Your task to perform on an android device: Open Google Maps and go to "Timeline" Image 0: 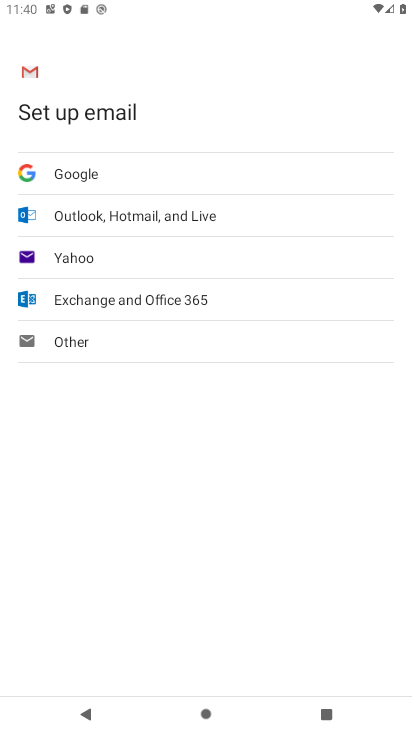
Step 0: press home button
Your task to perform on an android device: Open Google Maps and go to "Timeline" Image 1: 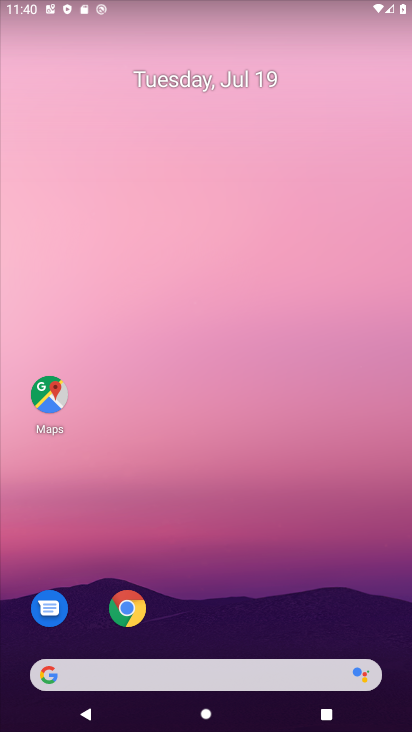
Step 1: click (48, 396)
Your task to perform on an android device: Open Google Maps and go to "Timeline" Image 2: 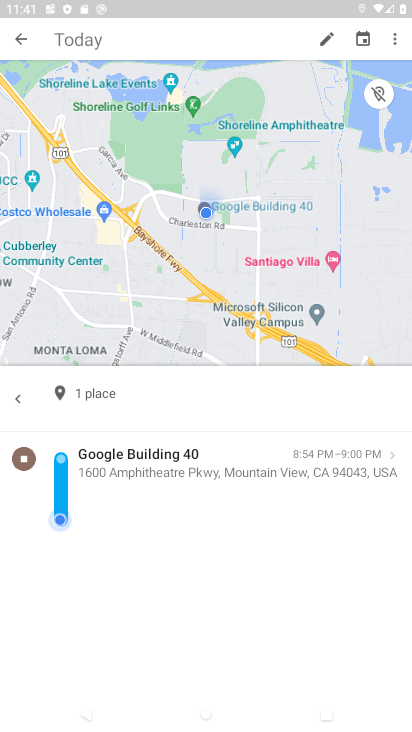
Step 2: press back button
Your task to perform on an android device: Open Google Maps and go to "Timeline" Image 3: 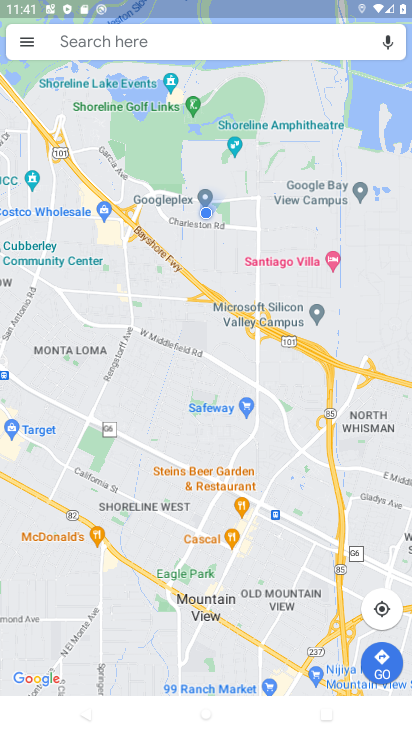
Step 3: click (27, 41)
Your task to perform on an android device: Open Google Maps and go to "Timeline" Image 4: 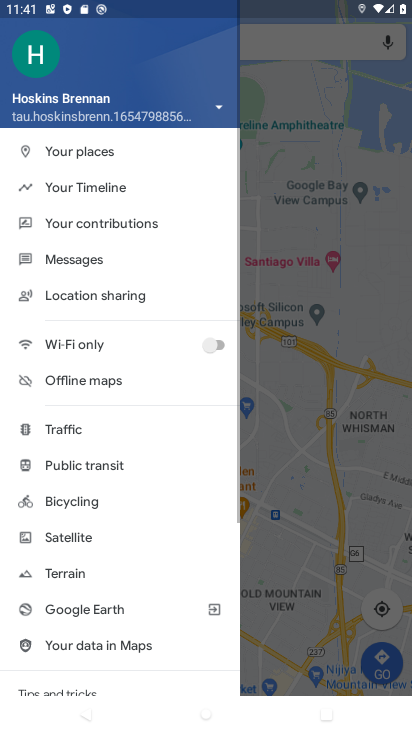
Step 4: click (88, 194)
Your task to perform on an android device: Open Google Maps and go to "Timeline" Image 5: 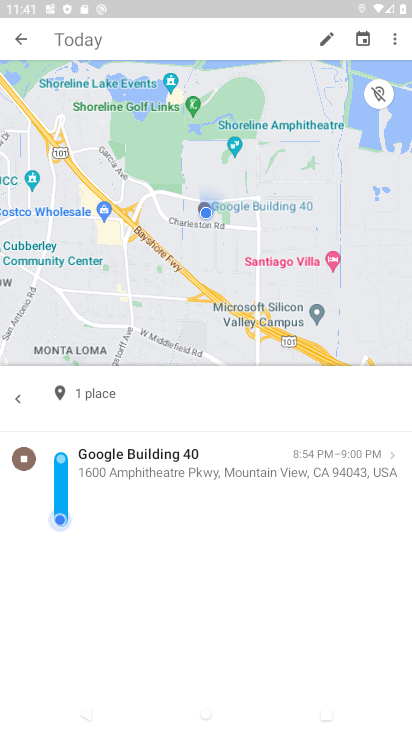
Step 5: task complete